Your task to perform on an android device: When is my next appointment? Image 0: 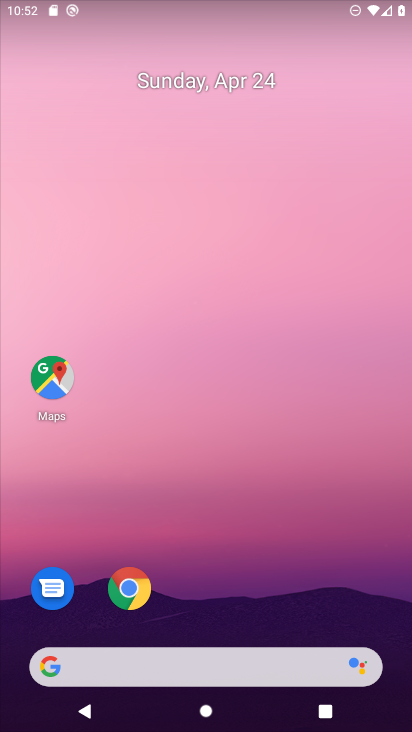
Step 0: drag from (218, 479) to (141, 35)
Your task to perform on an android device: When is my next appointment? Image 1: 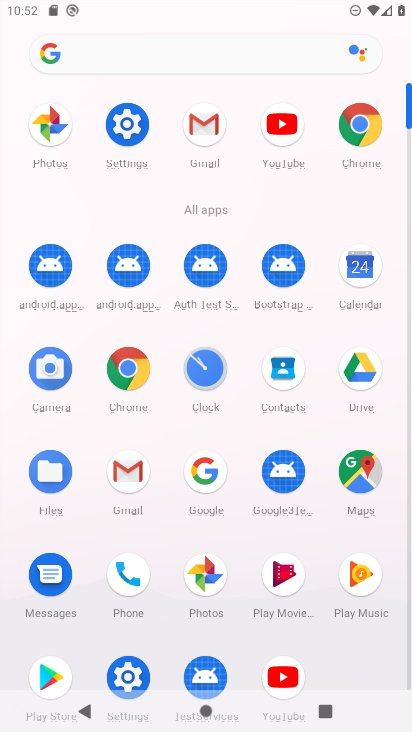
Step 1: click (362, 279)
Your task to perform on an android device: When is my next appointment? Image 2: 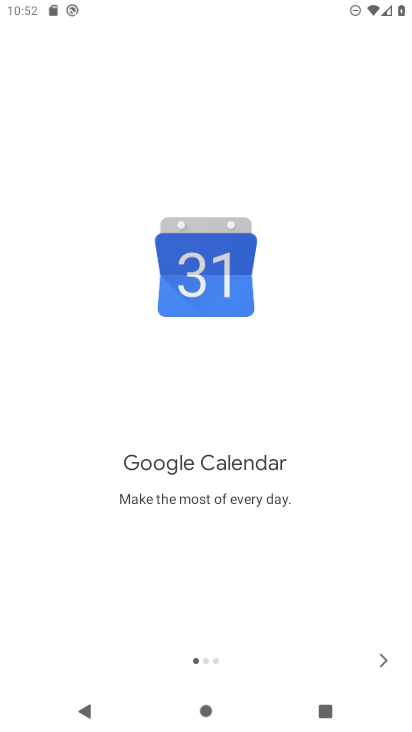
Step 2: click (377, 648)
Your task to perform on an android device: When is my next appointment? Image 3: 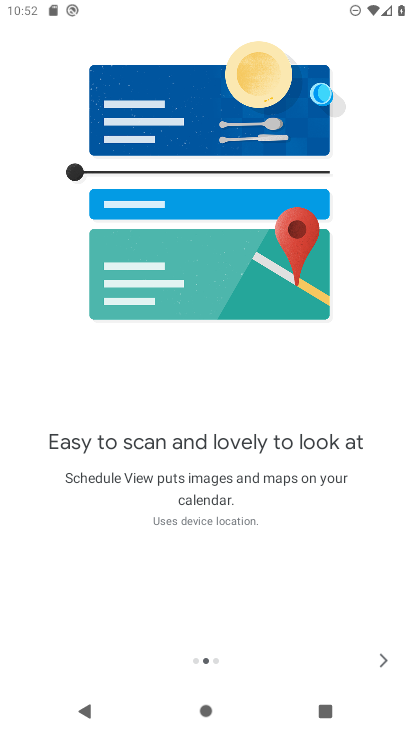
Step 3: click (377, 648)
Your task to perform on an android device: When is my next appointment? Image 4: 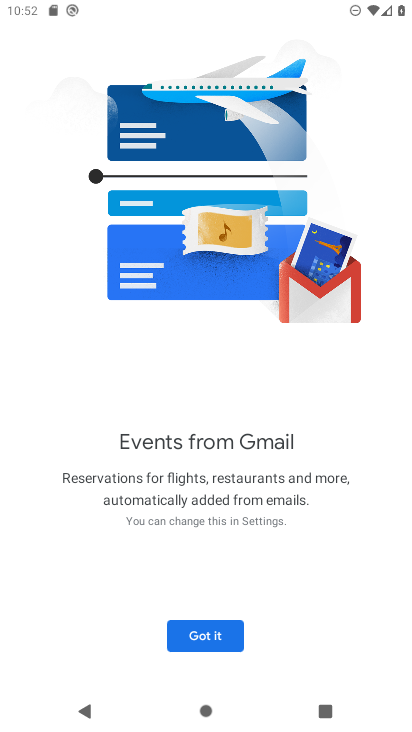
Step 4: click (208, 638)
Your task to perform on an android device: When is my next appointment? Image 5: 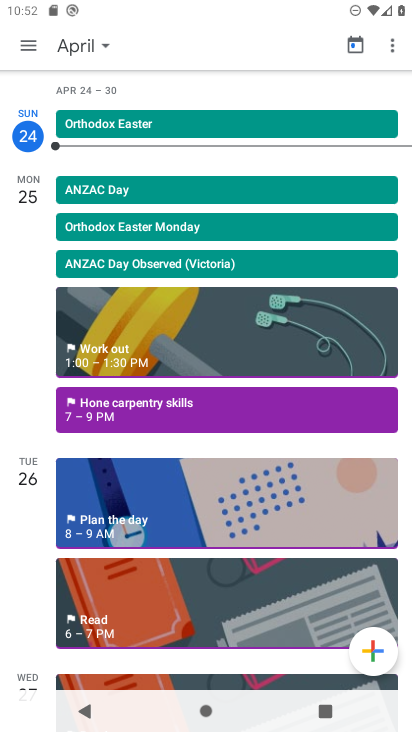
Step 5: task complete